Your task to perform on an android device: turn vacation reply on in the gmail app Image 0: 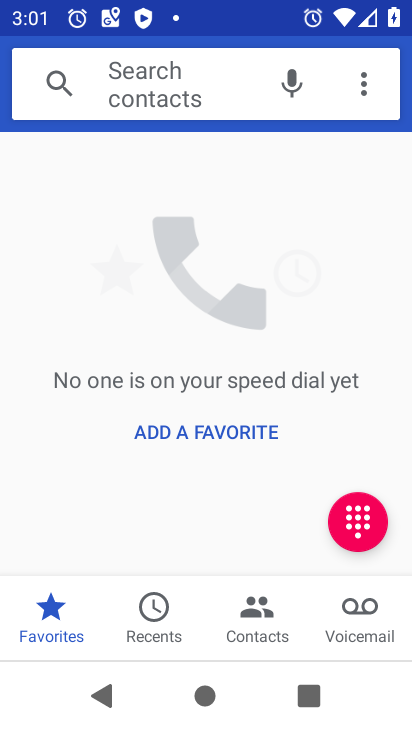
Step 0: press home button
Your task to perform on an android device: turn vacation reply on in the gmail app Image 1: 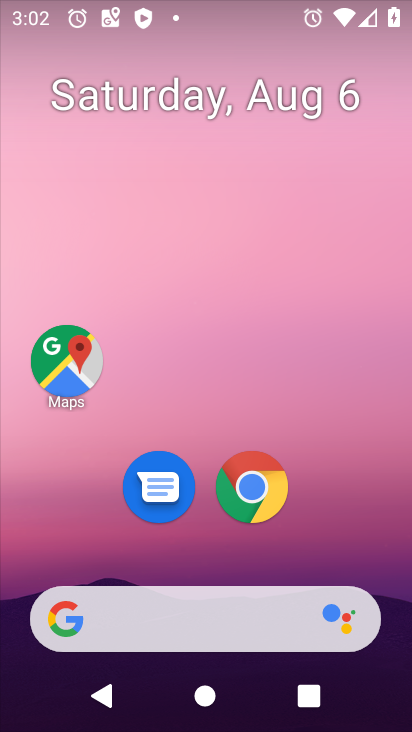
Step 1: drag from (211, 608) to (218, 91)
Your task to perform on an android device: turn vacation reply on in the gmail app Image 2: 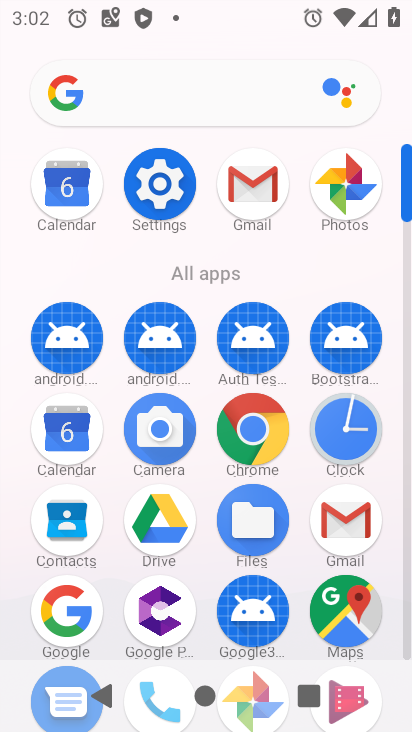
Step 2: click (340, 513)
Your task to perform on an android device: turn vacation reply on in the gmail app Image 3: 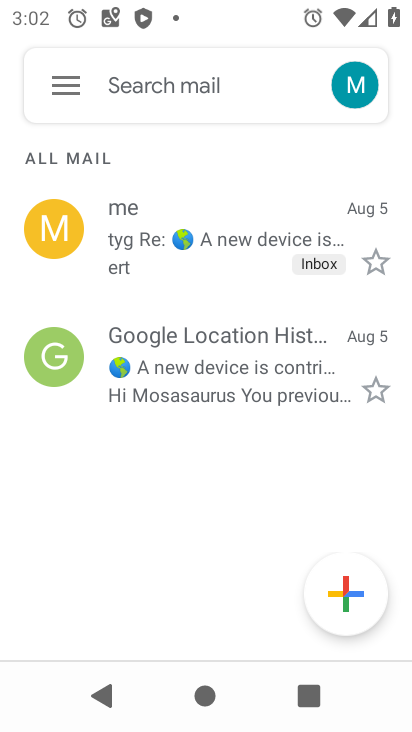
Step 3: click (69, 103)
Your task to perform on an android device: turn vacation reply on in the gmail app Image 4: 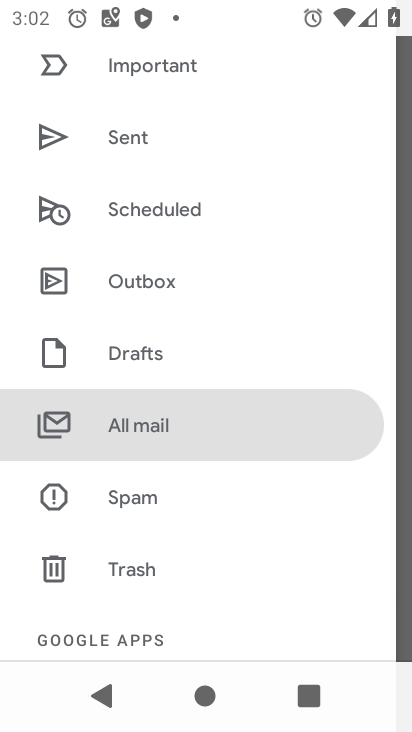
Step 4: drag from (184, 533) to (171, 168)
Your task to perform on an android device: turn vacation reply on in the gmail app Image 5: 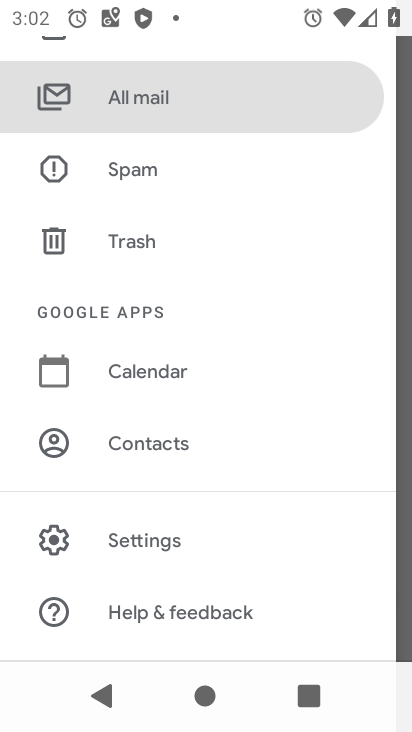
Step 5: click (146, 537)
Your task to perform on an android device: turn vacation reply on in the gmail app Image 6: 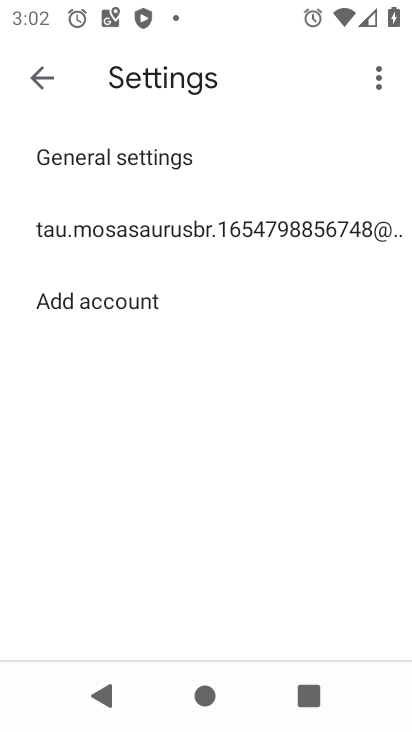
Step 6: click (176, 230)
Your task to perform on an android device: turn vacation reply on in the gmail app Image 7: 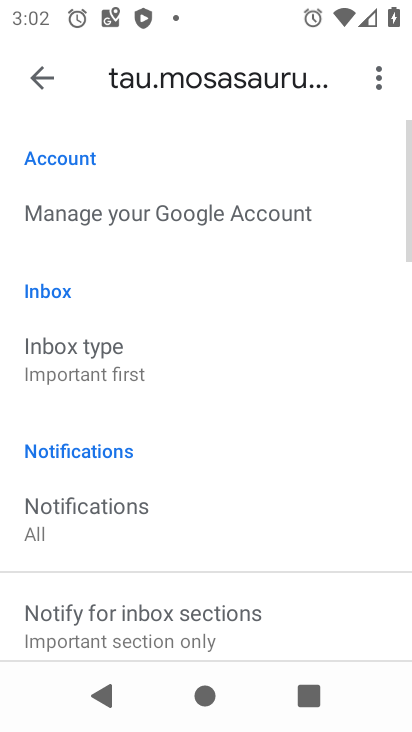
Step 7: drag from (202, 571) to (172, 157)
Your task to perform on an android device: turn vacation reply on in the gmail app Image 8: 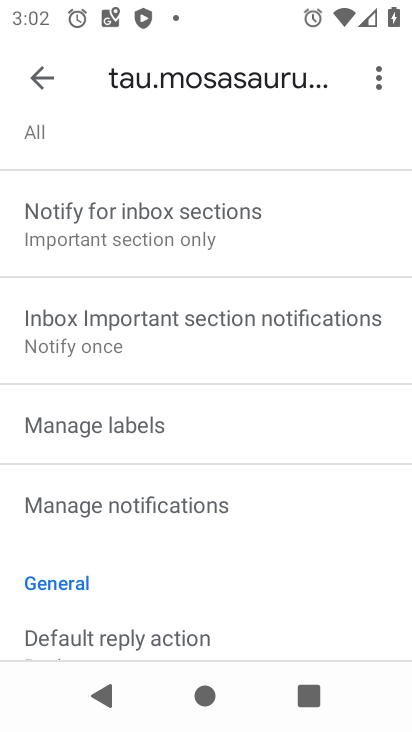
Step 8: drag from (200, 583) to (180, 171)
Your task to perform on an android device: turn vacation reply on in the gmail app Image 9: 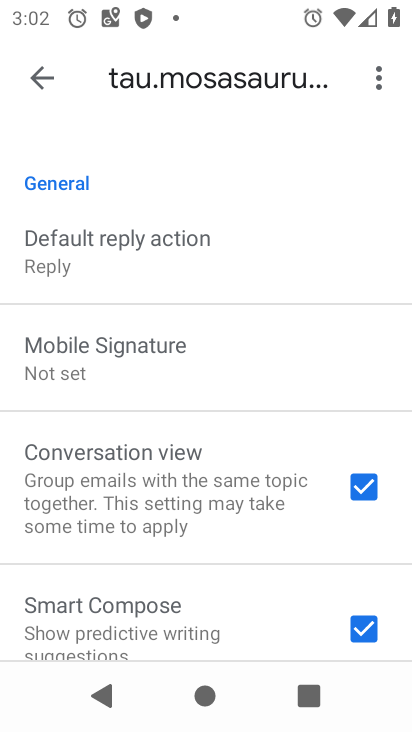
Step 9: drag from (154, 510) to (142, 173)
Your task to perform on an android device: turn vacation reply on in the gmail app Image 10: 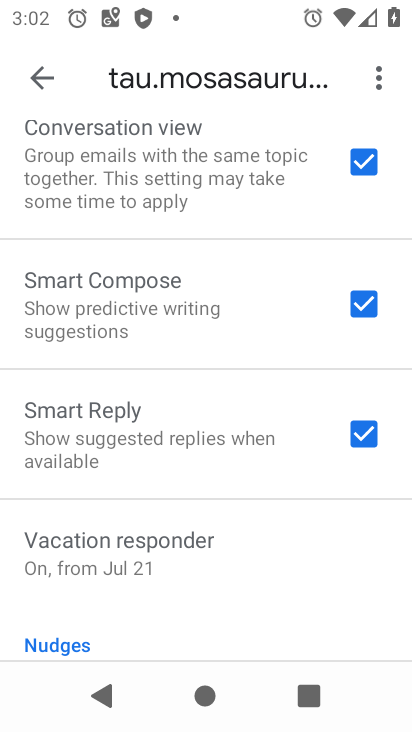
Step 10: click (177, 538)
Your task to perform on an android device: turn vacation reply on in the gmail app Image 11: 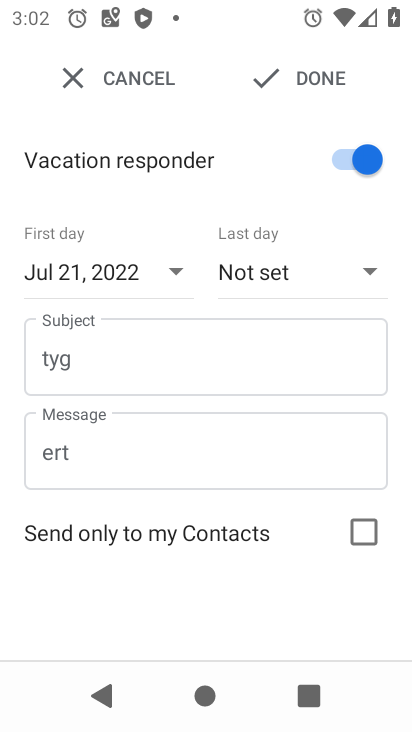
Step 11: task complete